Your task to perform on an android device: Go to notification settings Image 0: 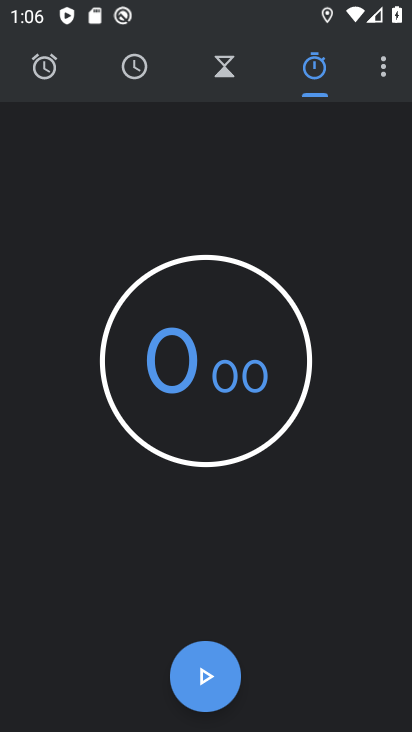
Step 0: press home button
Your task to perform on an android device: Go to notification settings Image 1: 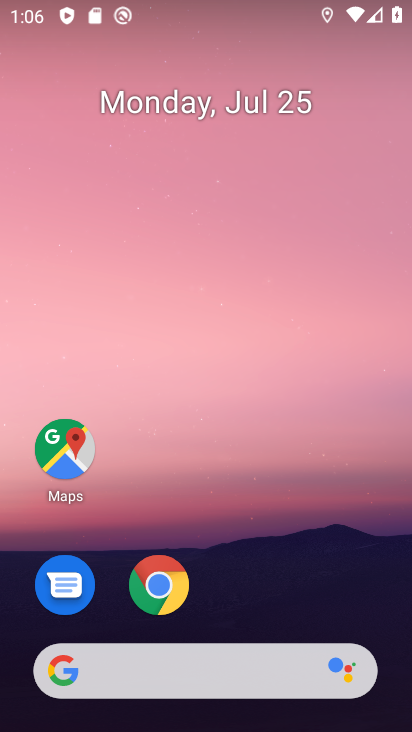
Step 1: drag from (258, 656) to (233, 231)
Your task to perform on an android device: Go to notification settings Image 2: 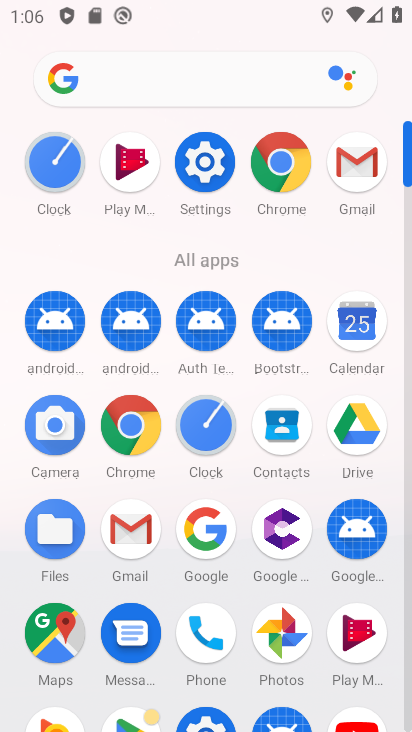
Step 2: click (192, 152)
Your task to perform on an android device: Go to notification settings Image 3: 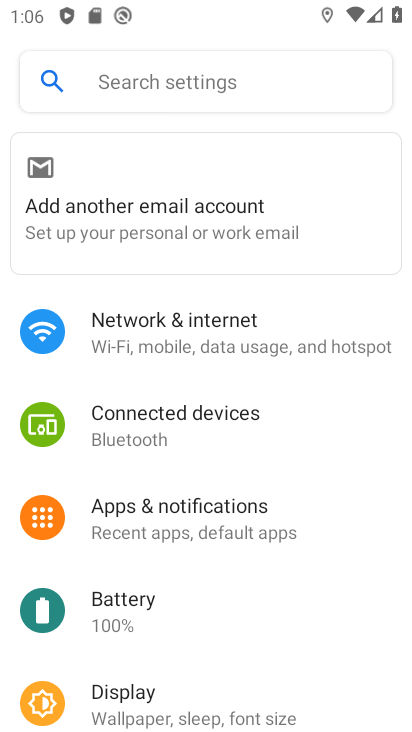
Step 3: click (181, 533)
Your task to perform on an android device: Go to notification settings Image 4: 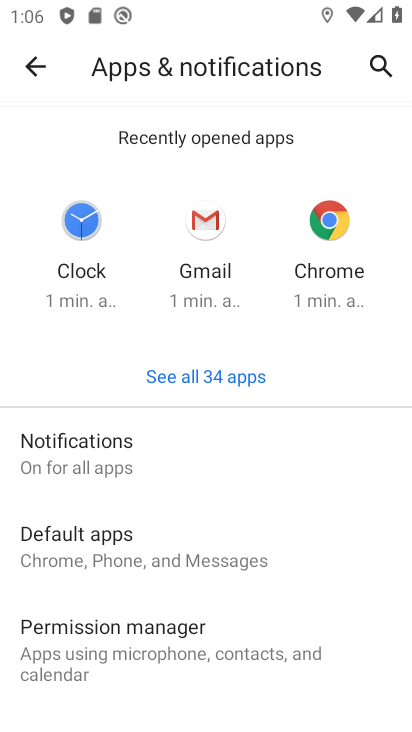
Step 4: task complete